Your task to perform on an android device: open chrome and create a bookmark for the current page Image 0: 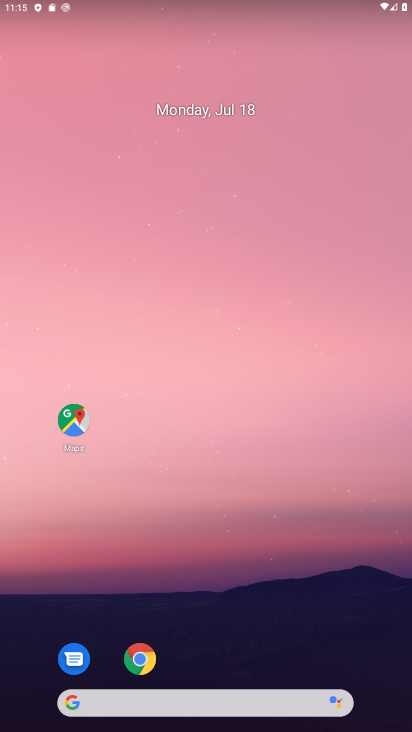
Step 0: drag from (332, 658) to (324, 104)
Your task to perform on an android device: open chrome and create a bookmark for the current page Image 1: 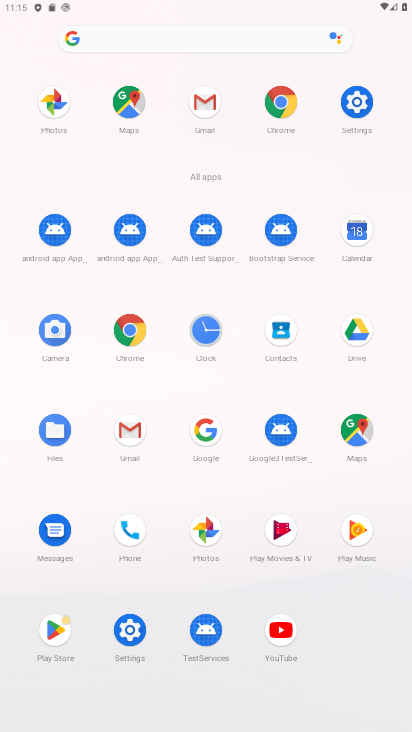
Step 1: click (273, 105)
Your task to perform on an android device: open chrome and create a bookmark for the current page Image 2: 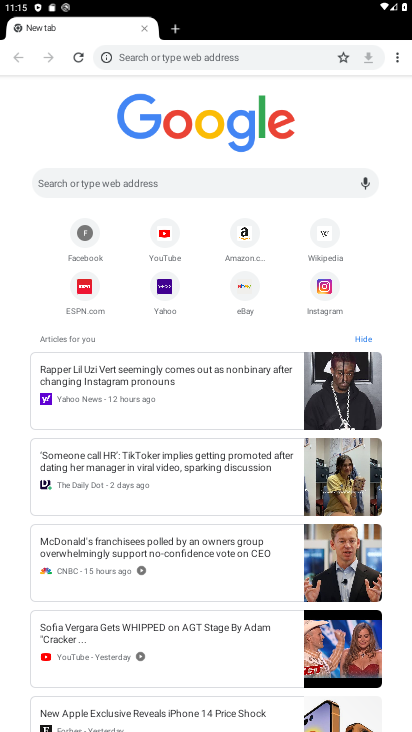
Step 2: click (344, 56)
Your task to perform on an android device: open chrome and create a bookmark for the current page Image 3: 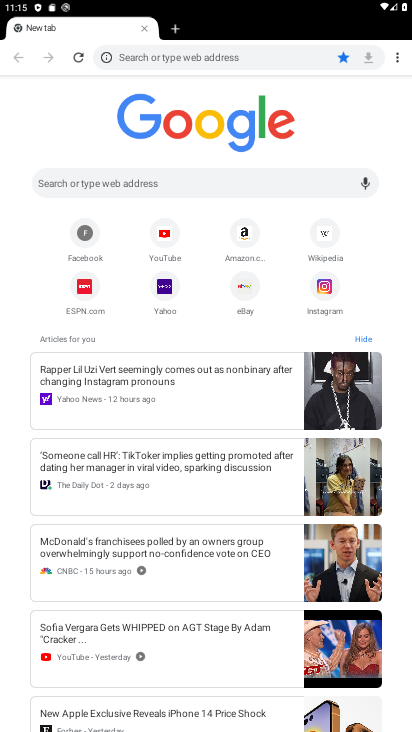
Step 3: task complete